Your task to perform on an android device: toggle notifications settings in the gmail app Image 0: 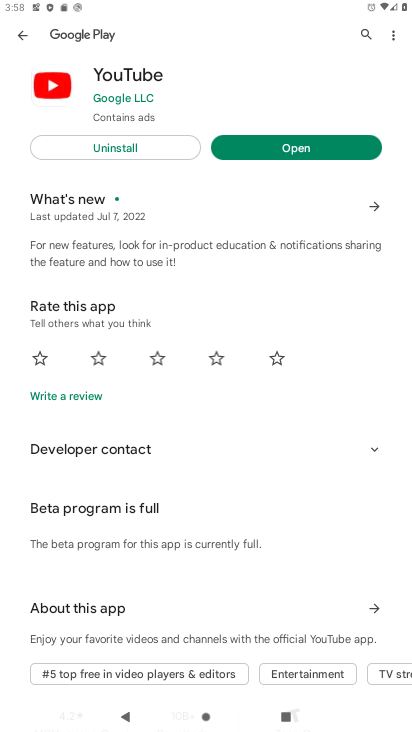
Step 0: press home button
Your task to perform on an android device: toggle notifications settings in the gmail app Image 1: 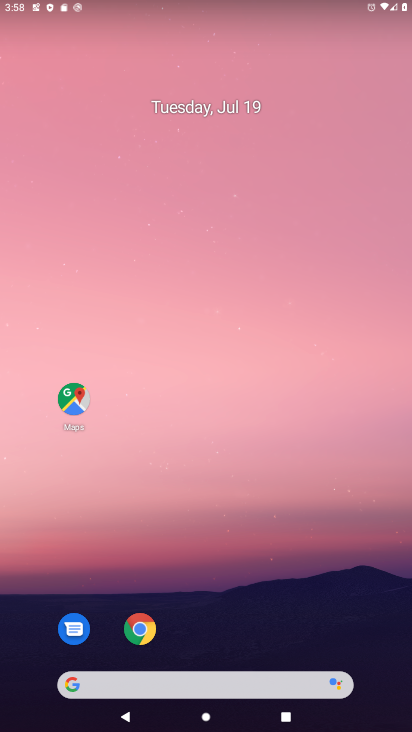
Step 1: drag from (157, 581) to (154, 182)
Your task to perform on an android device: toggle notifications settings in the gmail app Image 2: 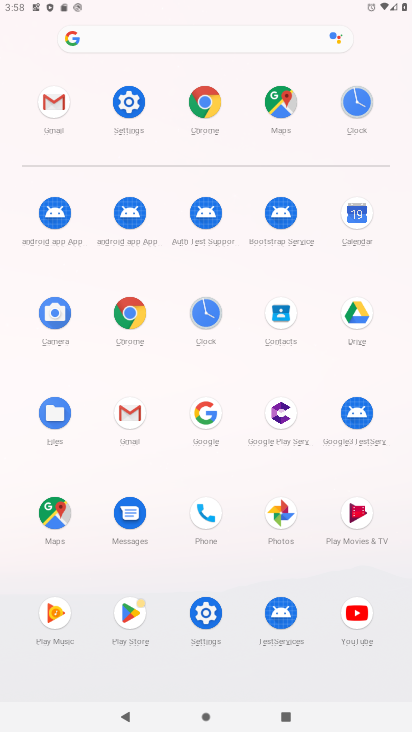
Step 2: click (130, 417)
Your task to perform on an android device: toggle notifications settings in the gmail app Image 3: 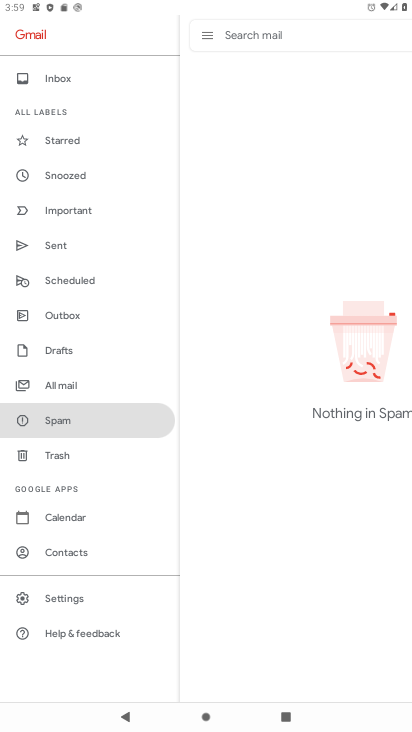
Step 3: click (49, 604)
Your task to perform on an android device: toggle notifications settings in the gmail app Image 4: 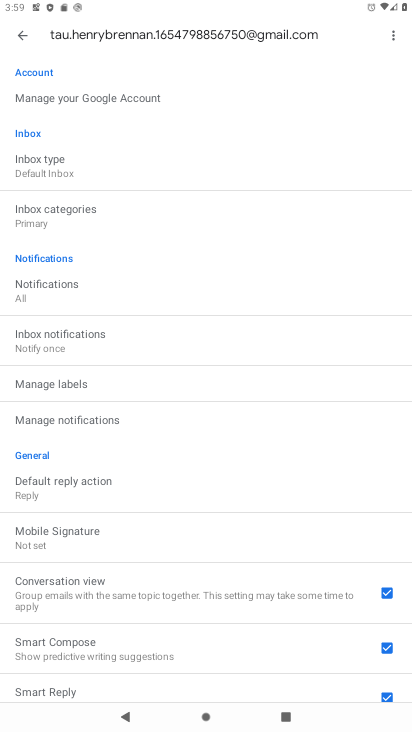
Step 4: click (46, 429)
Your task to perform on an android device: toggle notifications settings in the gmail app Image 5: 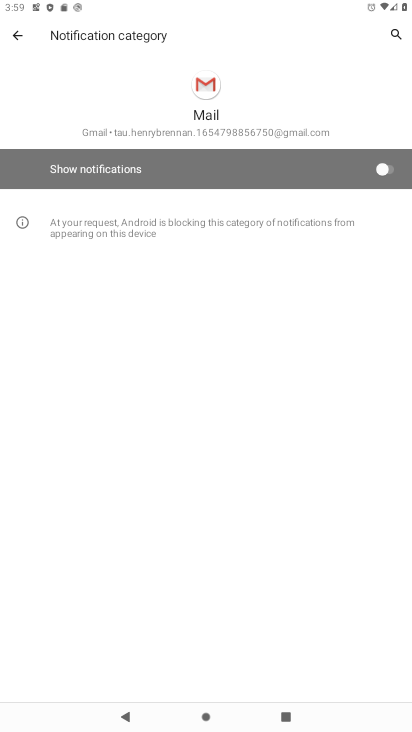
Step 5: click (390, 166)
Your task to perform on an android device: toggle notifications settings in the gmail app Image 6: 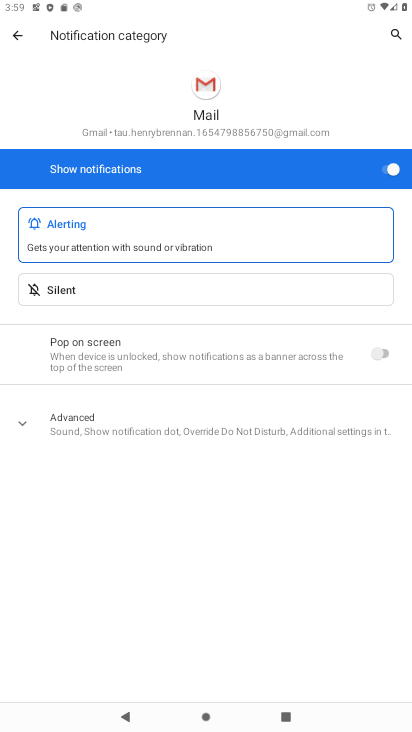
Step 6: task complete